Your task to perform on an android device: Open Google Maps Image 0: 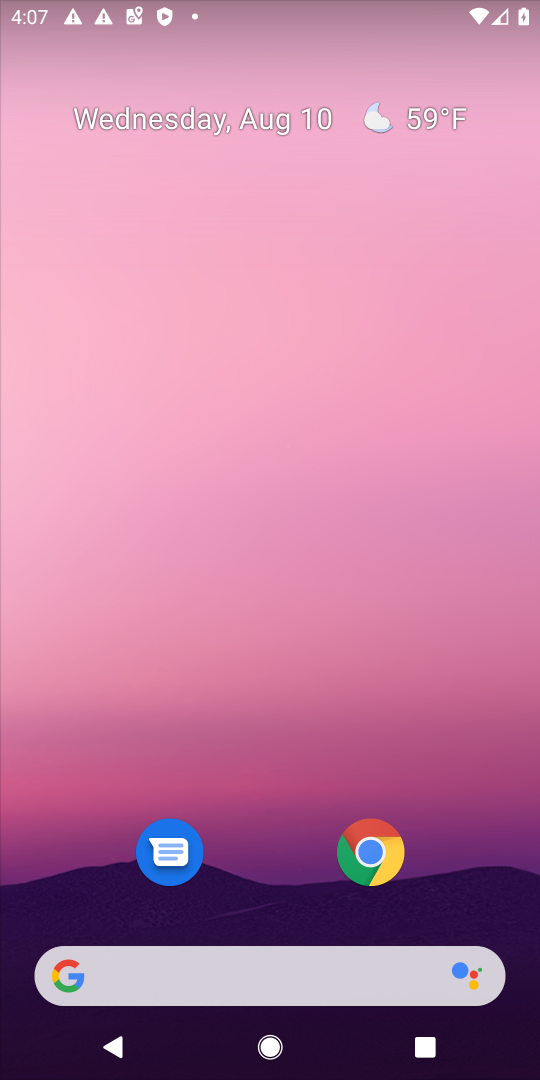
Step 0: drag from (457, 830) to (201, 199)
Your task to perform on an android device: Open Google Maps Image 1: 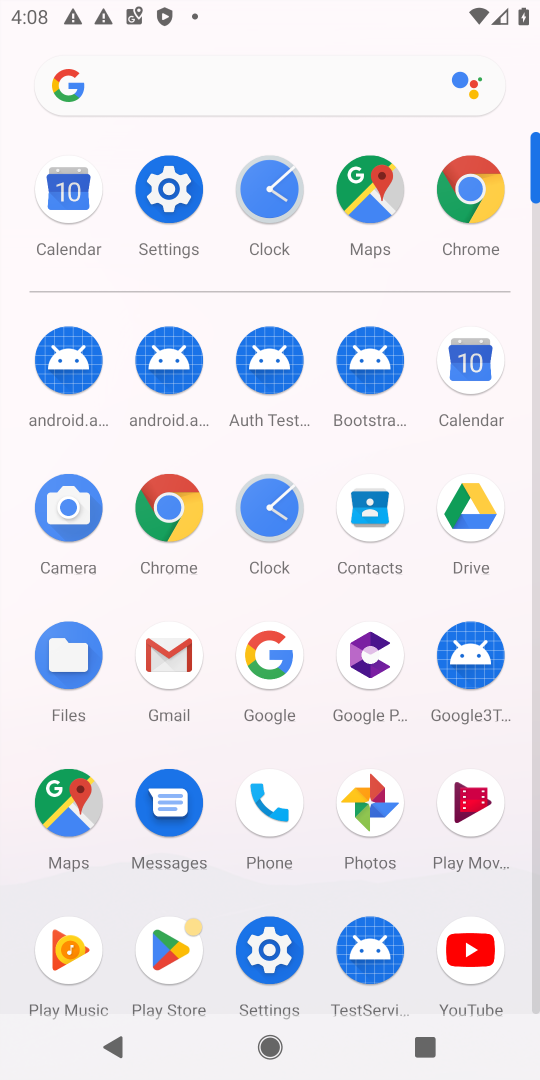
Step 1: click (77, 799)
Your task to perform on an android device: Open Google Maps Image 2: 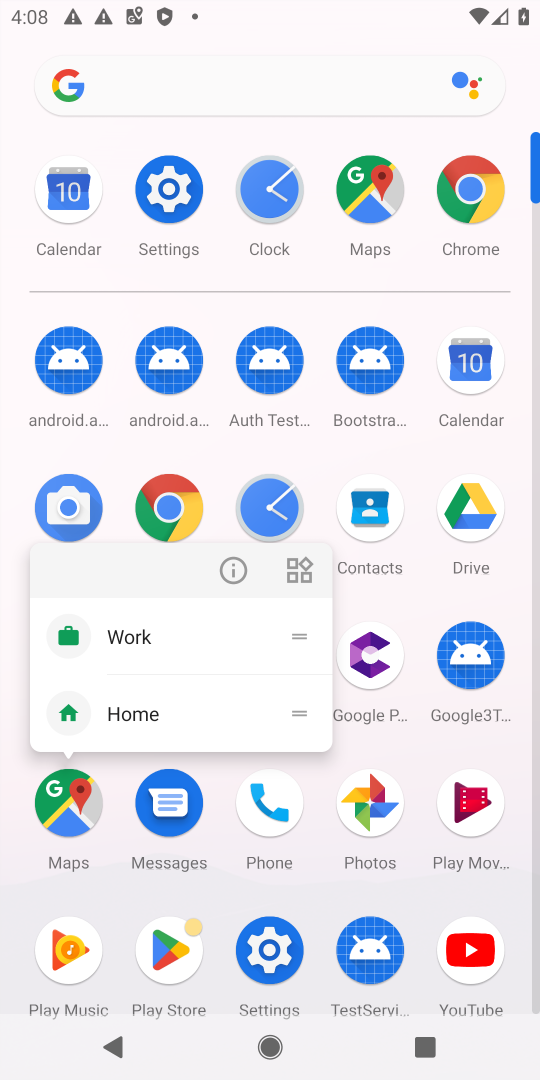
Step 2: click (77, 792)
Your task to perform on an android device: Open Google Maps Image 3: 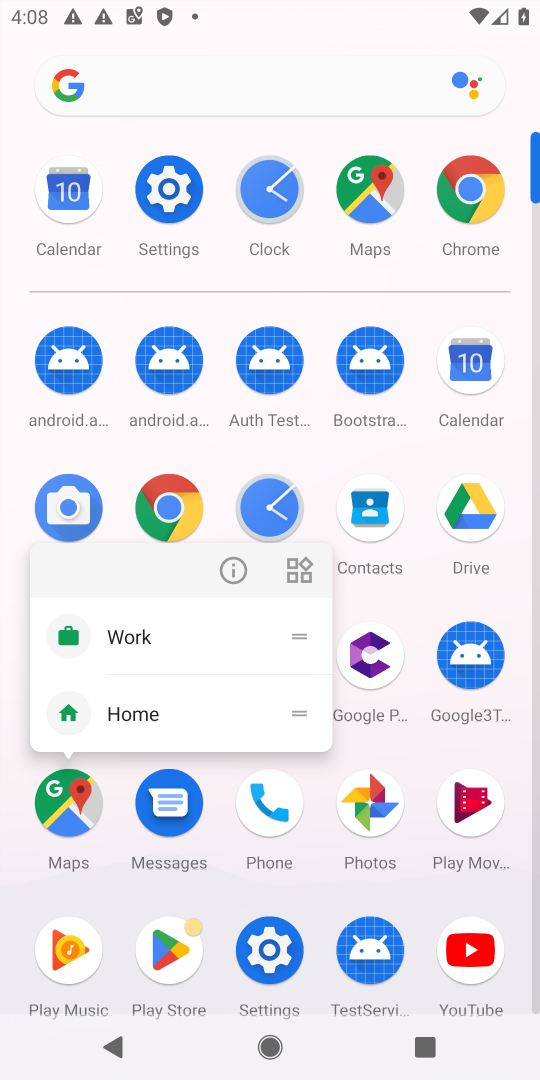
Step 3: click (65, 804)
Your task to perform on an android device: Open Google Maps Image 4: 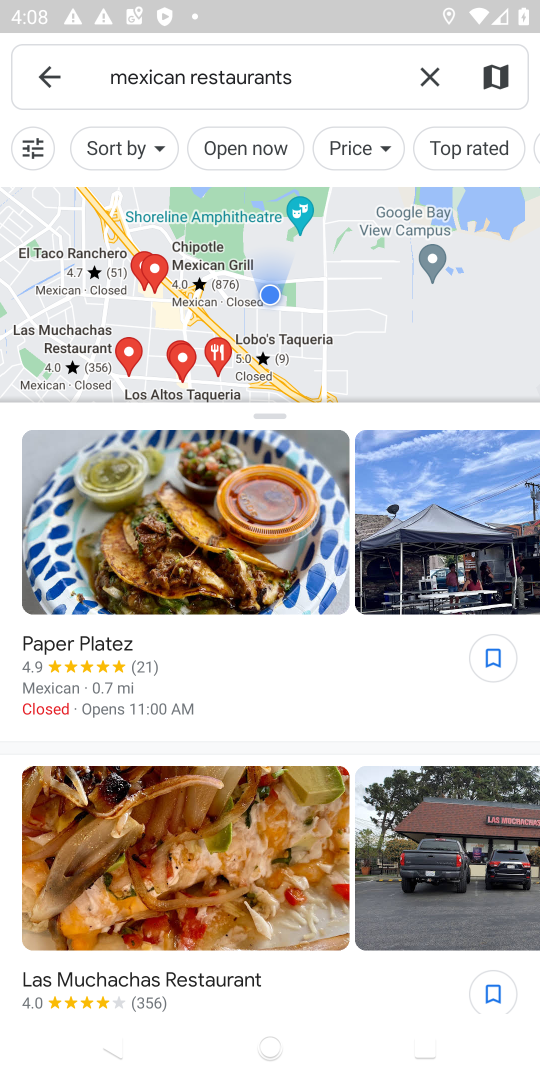
Step 4: task complete